Your task to perform on an android device: open app "PUBG MOBILE" (install if not already installed) and enter user name: "phenomenologically@gmail.com" and password: "artillery" Image 0: 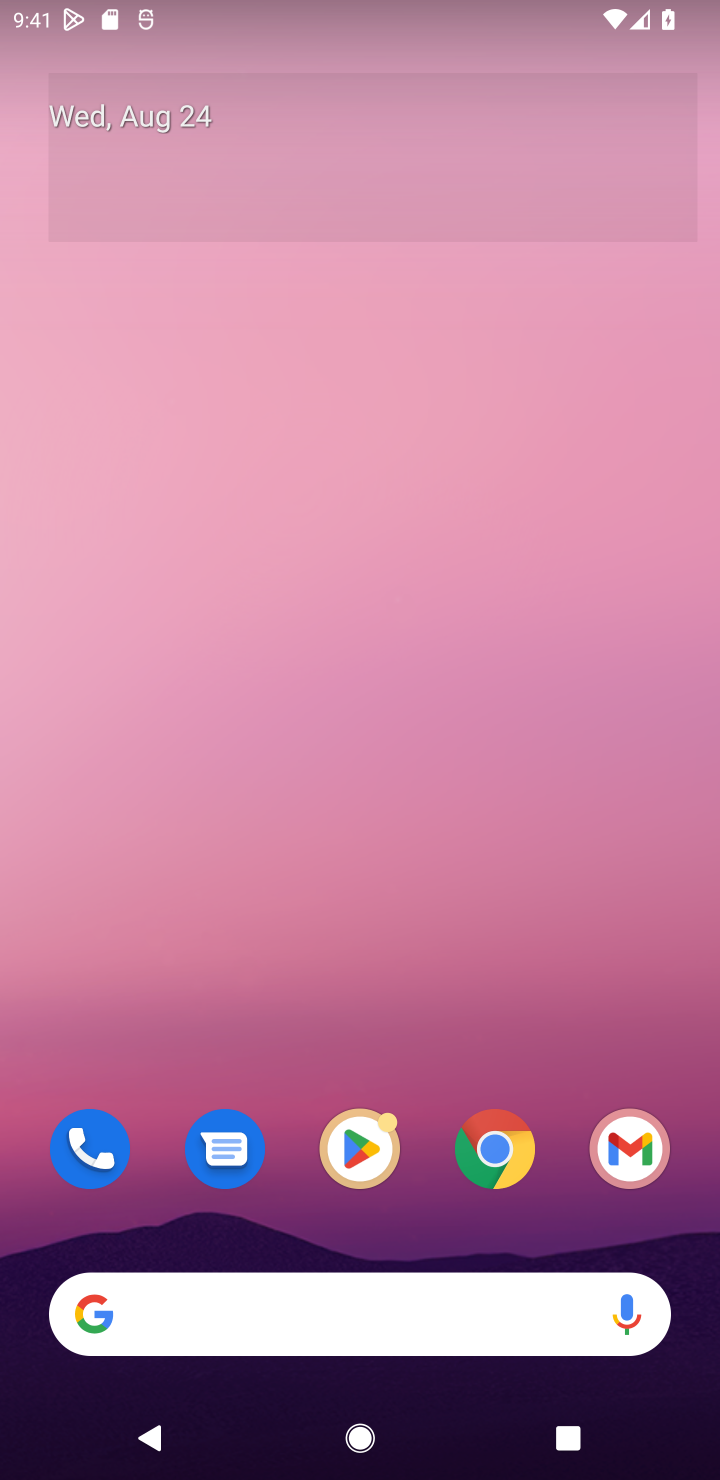
Step 0: drag from (318, 1092) to (307, 63)
Your task to perform on an android device: open app "PUBG MOBILE" (install if not already installed) and enter user name: "phenomenologically@gmail.com" and password: "artillery" Image 1: 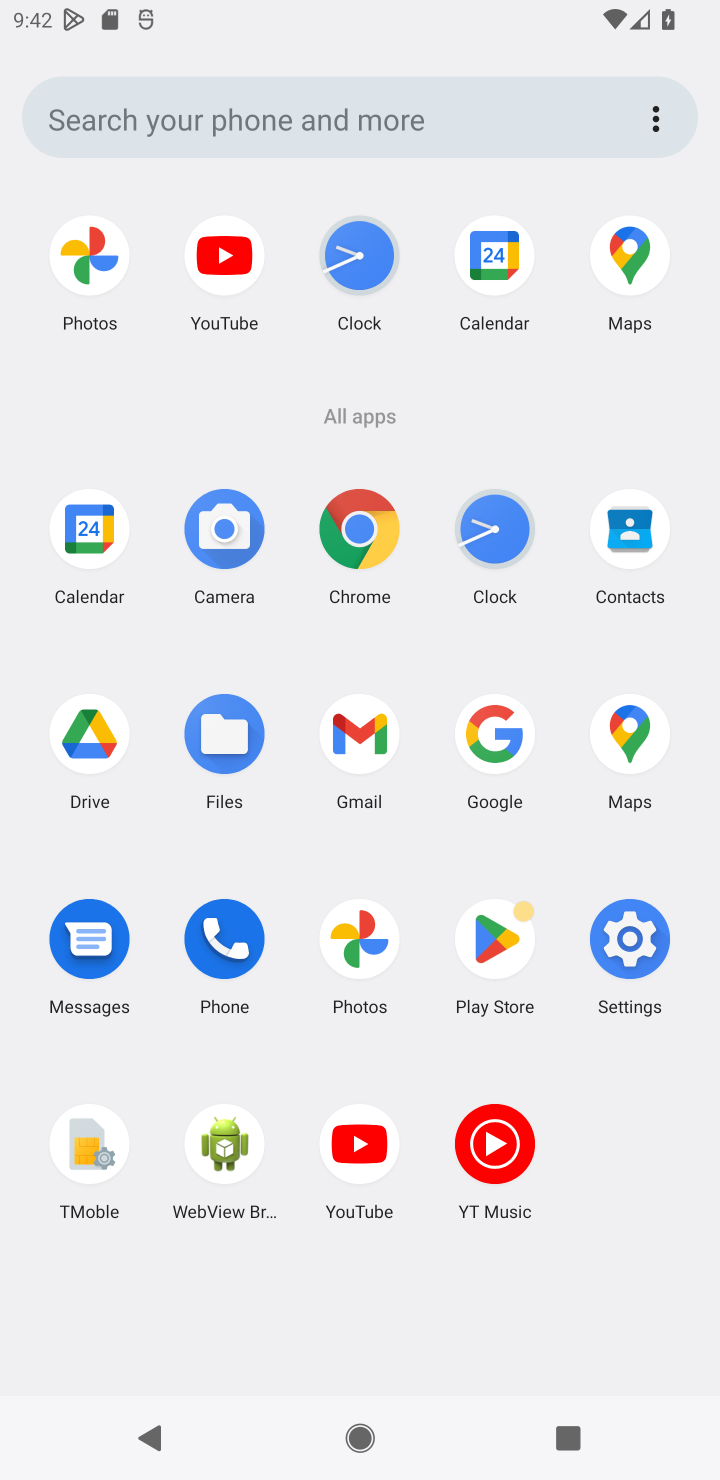
Step 1: click (524, 924)
Your task to perform on an android device: open app "PUBG MOBILE" (install if not already installed) and enter user name: "phenomenologically@gmail.com" and password: "artillery" Image 2: 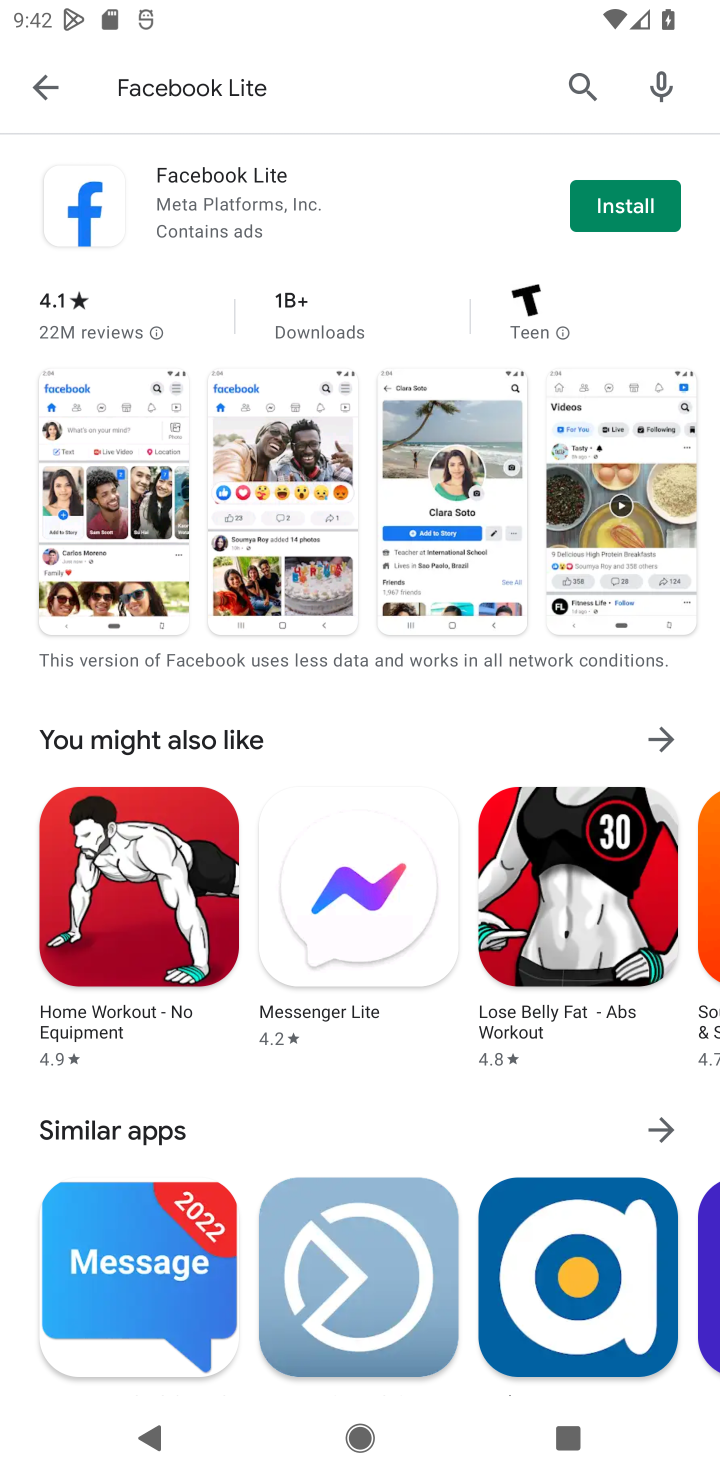
Step 2: press back button
Your task to perform on an android device: open app "PUBG MOBILE" (install if not already installed) and enter user name: "phenomenologically@gmail.com" and password: "artillery" Image 3: 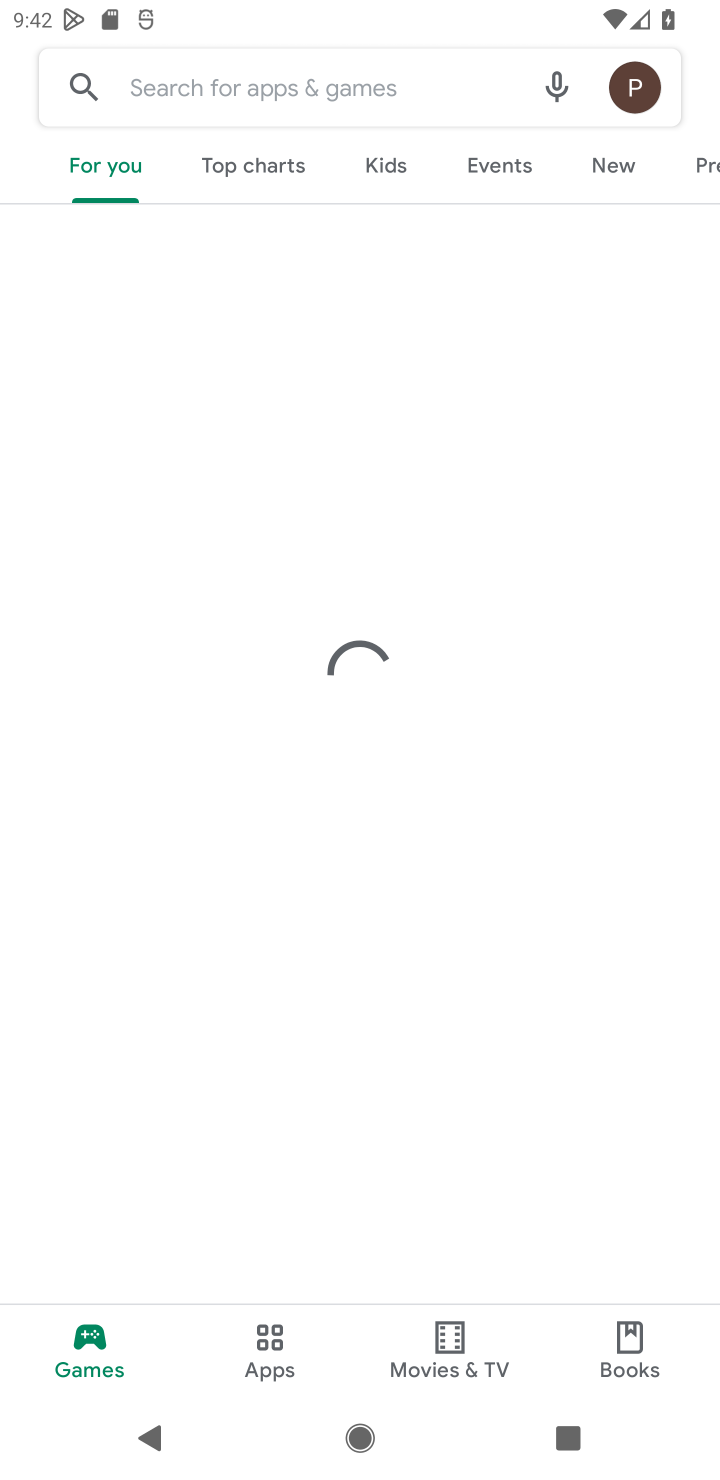
Step 3: click (343, 69)
Your task to perform on an android device: open app "PUBG MOBILE" (install if not already installed) and enter user name: "phenomenologically@gmail.com" and password: "artillery" Image 4: 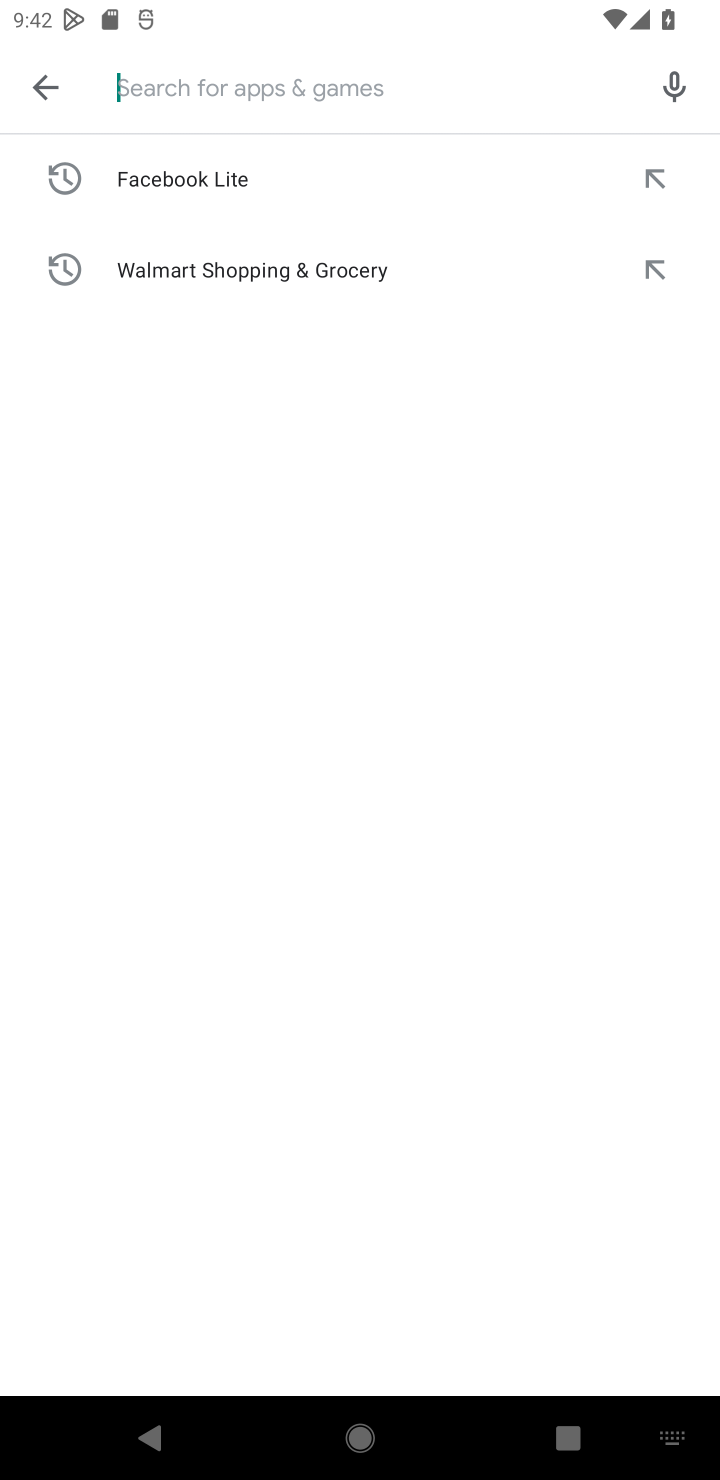
Step 4: type "PUBG MOBILE"
Your task to perform on an android device: open app "PUBG MOBILE" (install if not already installed) and enter user name: "phenomenologically@gmail.com" and password: "artillery" Image 5: 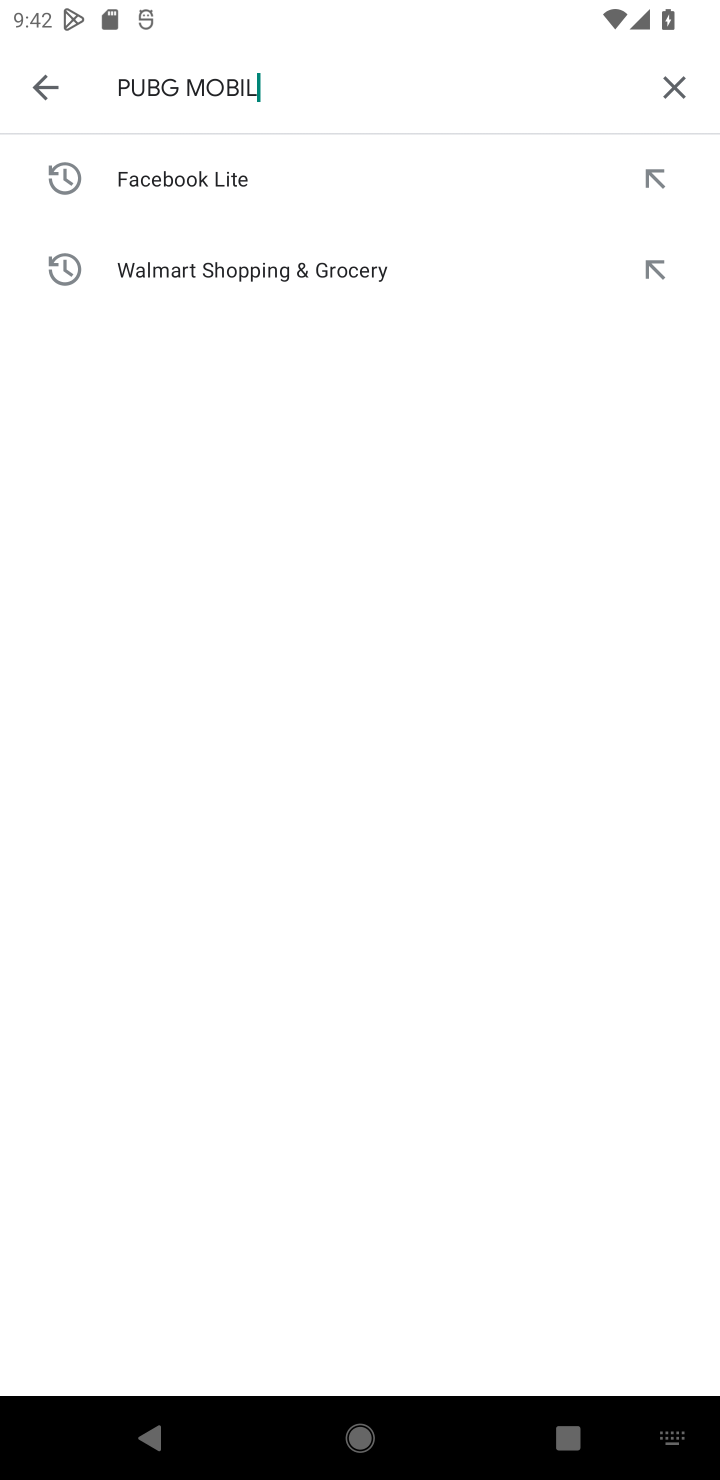
Step 5: press enter
Your task to perform on an android device: open app "PUBG MOBILE" (install if not already installed) and enter user name: "phenomenologically@gmail.com" and password: "artillery" Image 6: 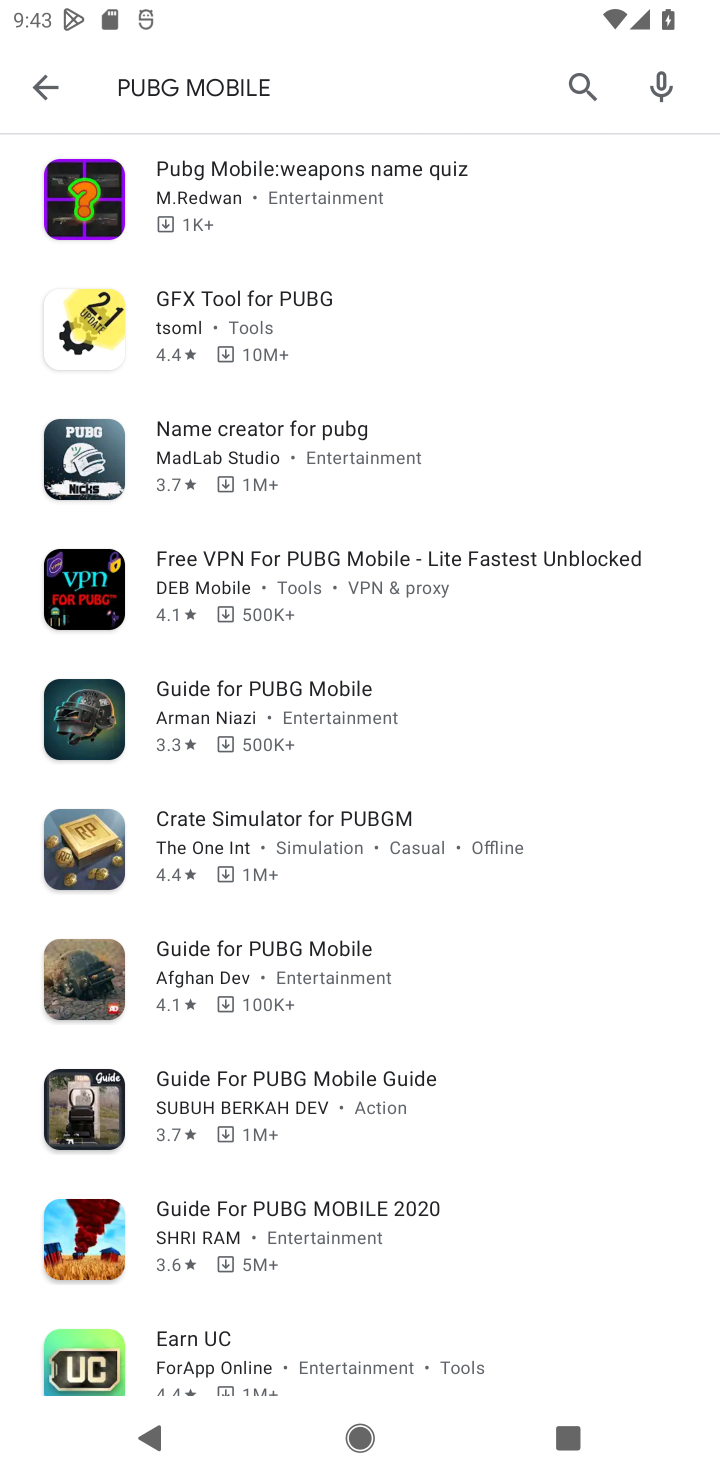
Step 6: click (153, 209)
Your task to perform on an android device: open app "PUBG MOBILE" (install if not already installed) and enter user name: "phenomenologically@gmail.com" and password: "artillery" Image 7: 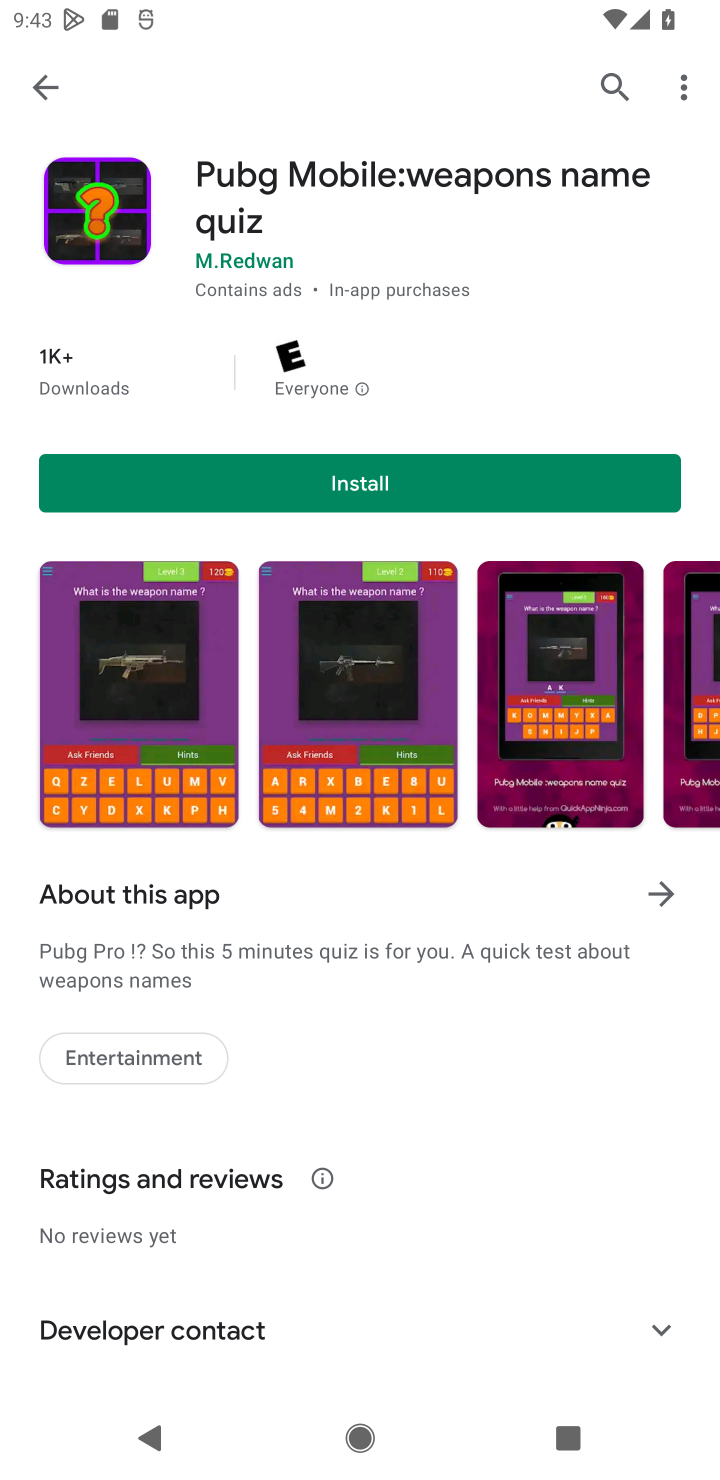
Step 7: click (419, 484)
Your task to perform on an android device: open app "PUBG MOBILE" (install if not already installed) and enter user name: "phenomenologically@gmail.com" and password: "artillery" Image 8: 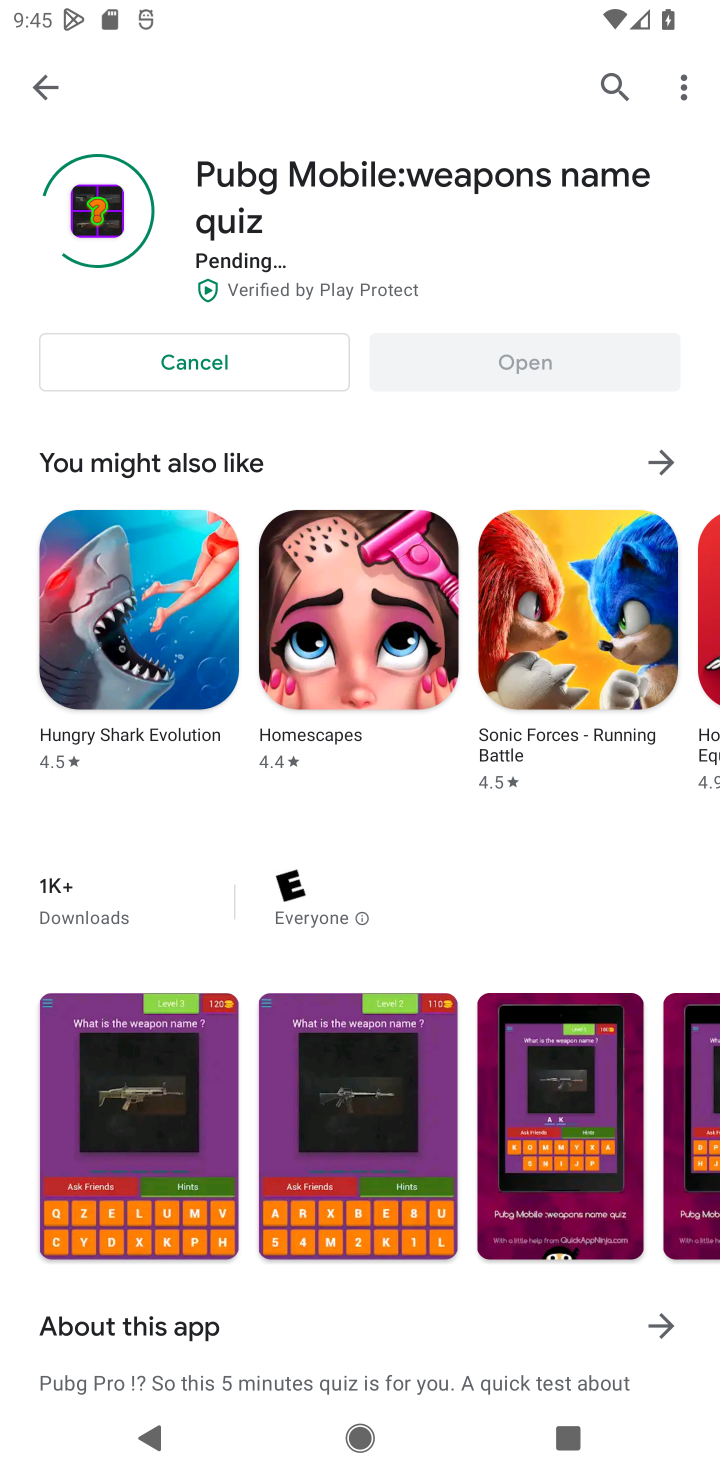
Step 8: task complete